Your task to perform on an android device: clear history in the chrome app Image 0: 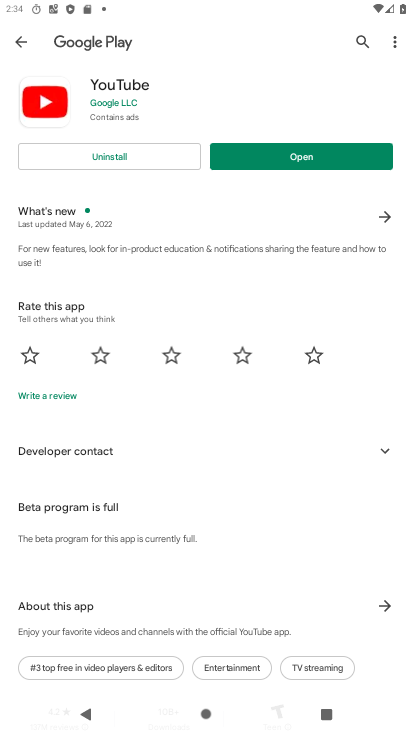
Step 0: press home button
Your task to perform on an android device: clear history in the chrome app Image 1: 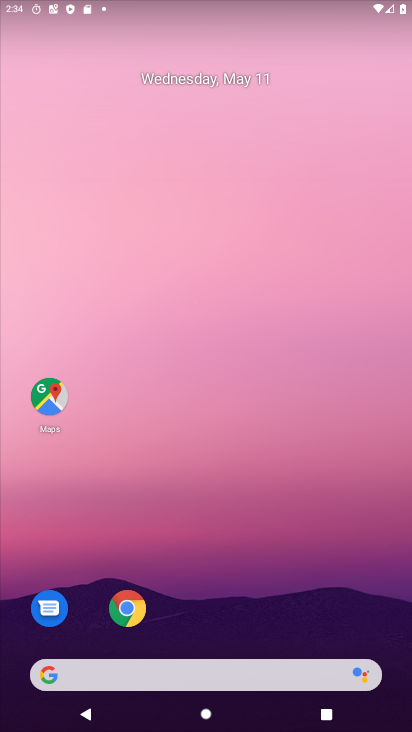
Step 1: click (125, 595)
Your task to perform on an android device: clear history in the chrome app Image 2: 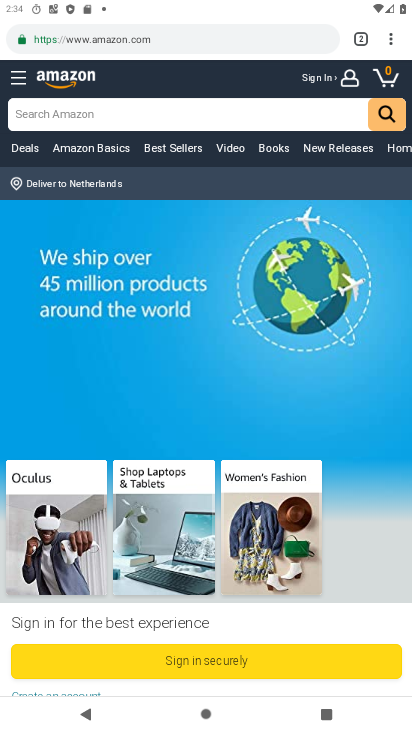
Step 2: click (390, 40)
Your task to perform on an android device: clear history in the chrome app Image 3: 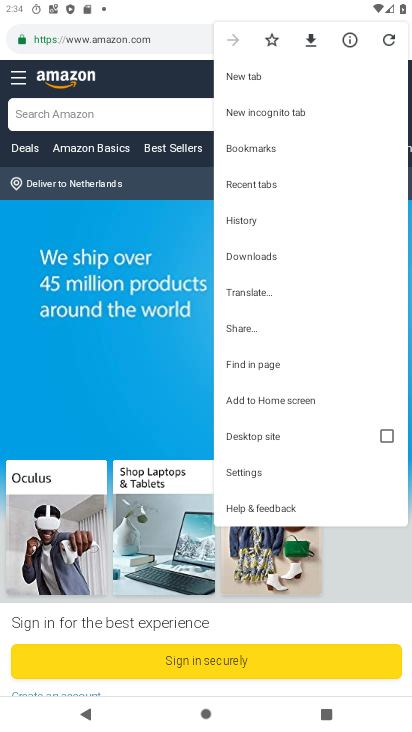
Step 3: click (243, 228)
Your task to perform on an android device: clear history in the chrome app Image 4: 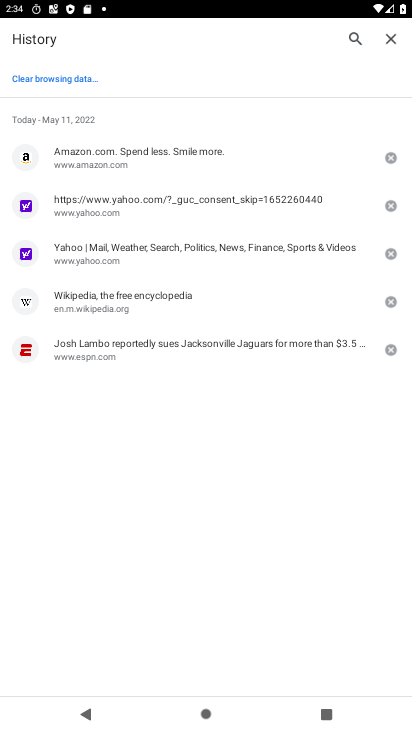
Step 4: click (88, 78)
Your task to perform on an android device: clear history in the chrome app Image 5: 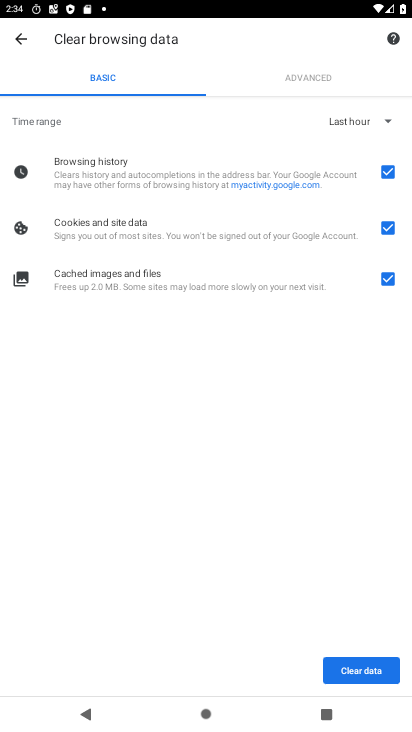
Step 5: click (378, 123)
Your task to perform on an android device: clear history in the chrome app Image 6: 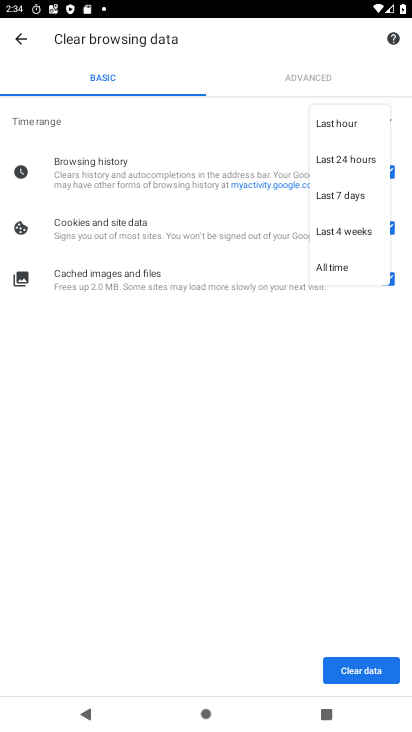
Step 6: click (349, 260)
Your task to perform on an android device: clear history in the chrome app Image 7: 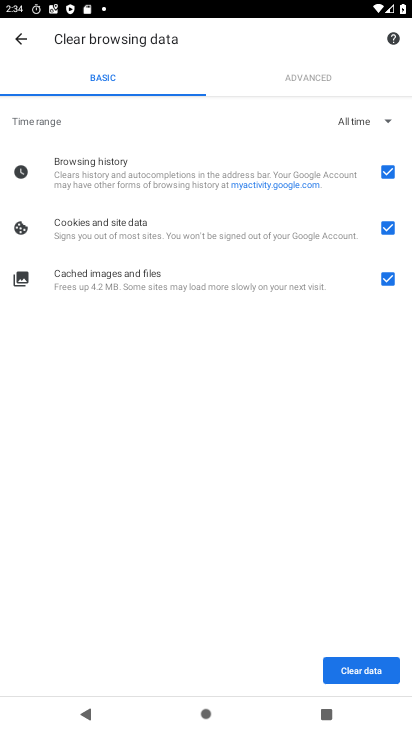
Step 7: click (366, 662)
Your task to perform on an android device: clear history in the chrome app Image 8: 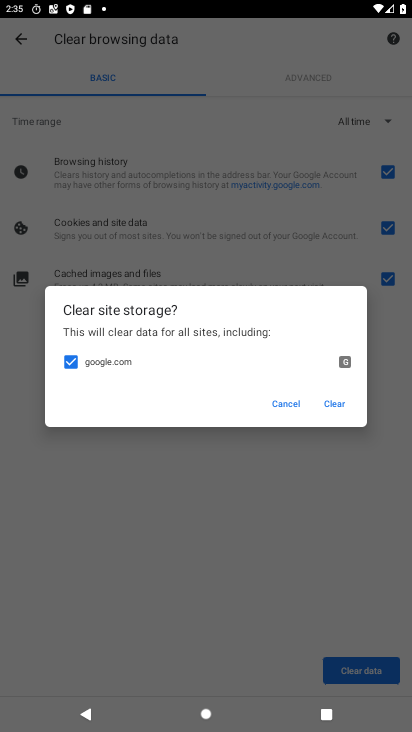
Step 8: click (327, 397)
Your task to perform on an android device: clear history in the chrome app Image 9: 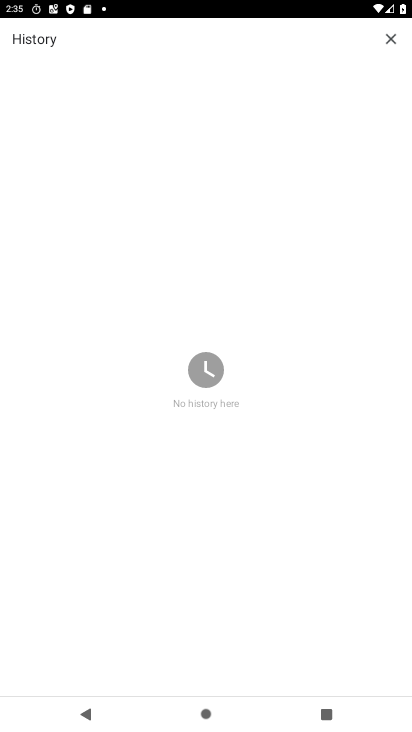
Step 9: task complete